Your task to perform on an android device: turn on translation in the chrome app Image 0: 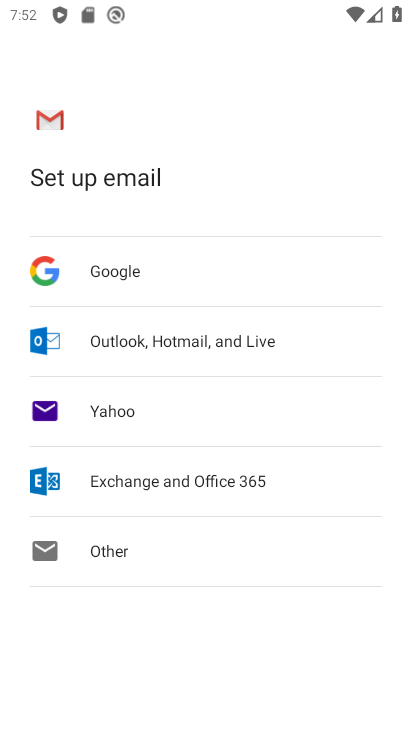
Step 0: press home button
Your task to perform on an android device: turn on translation in the chrome app Image 1: 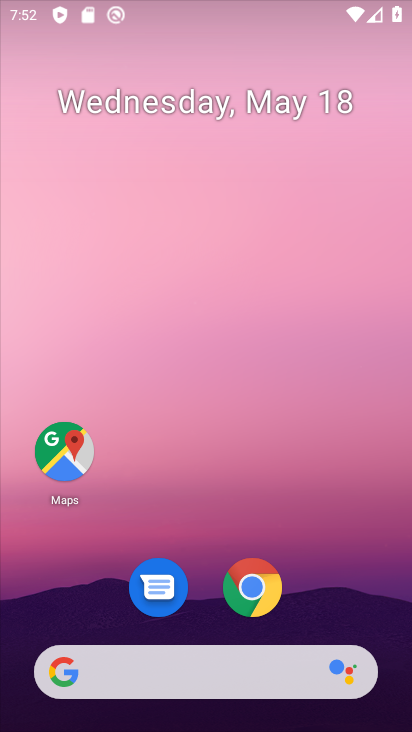
Step 1: drag from (224, 527) to (319, 103)
Your task to perform on an android device: turn on translation in the chrome app Image 2: 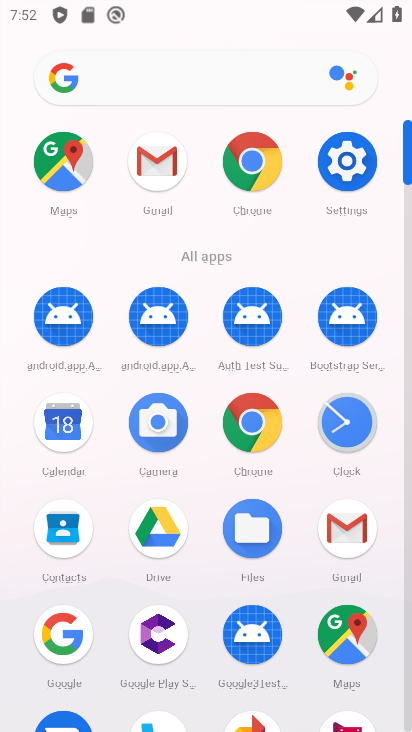
Step 2: click (257, 192)
Your task to perform on an android device: turn on translation in the chrome app Image 3: 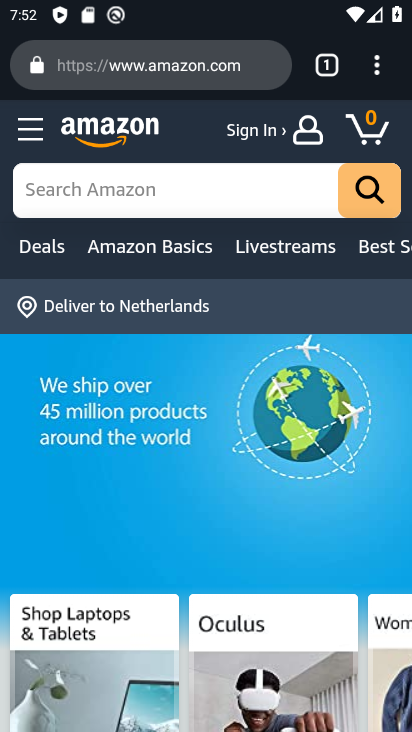
Step 3: click (382, 75)
Your task to perform on an android device: turn on translation in the chrome app Image 4: 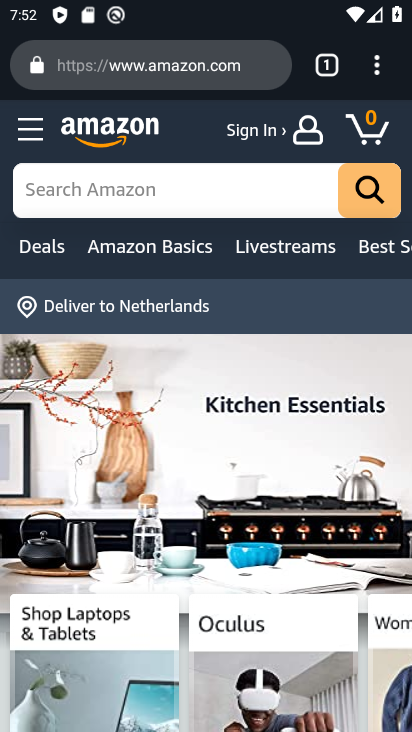
Step 4: click (385, 71)
Your task to perform on an android device: turn on translation in the chrome app Image 5: 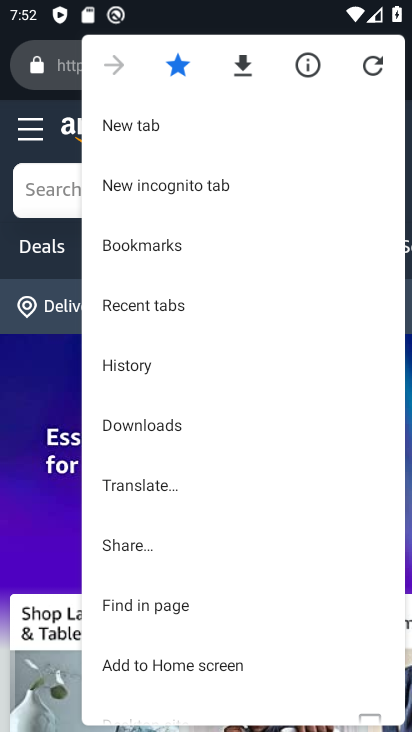
Step 5: click (188, 490)
Your task to perform on an android device: turn on translation in the chrome app Image 6: 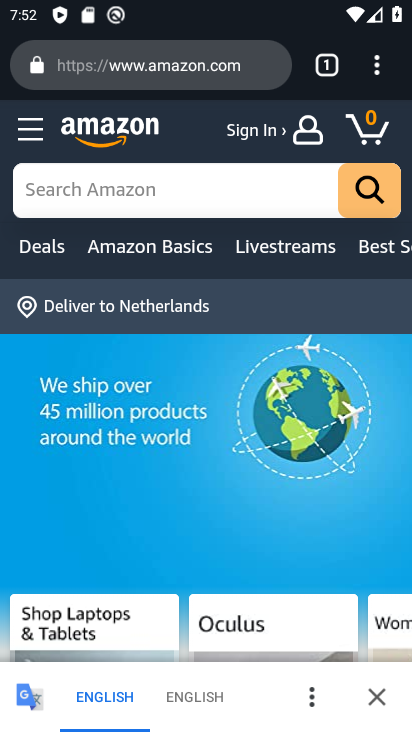
Step 6: click (311, 701)
Your task to perform on an android device: turn on translation in the chrome app Image 7: 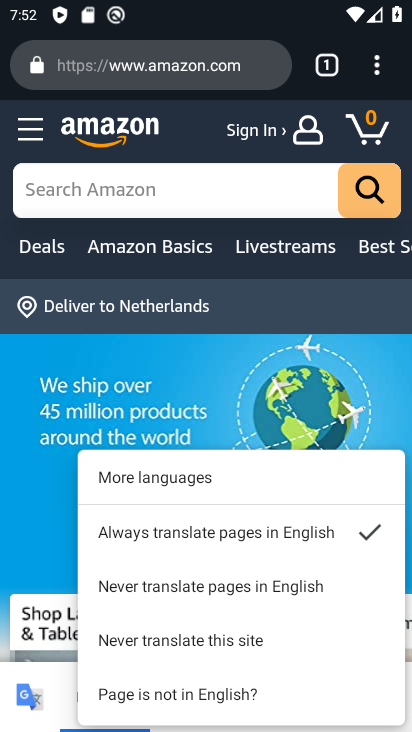
Step 7: task complete